Your task to perform on an android device: turn on translation in the chrome app Image 0: 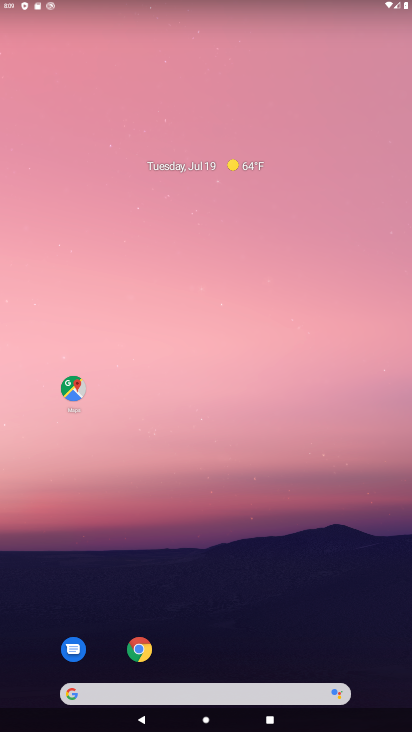
Step 0: click (151, 650)
Your task to perform on an android device: turn on translation in the chrome app Image 1: 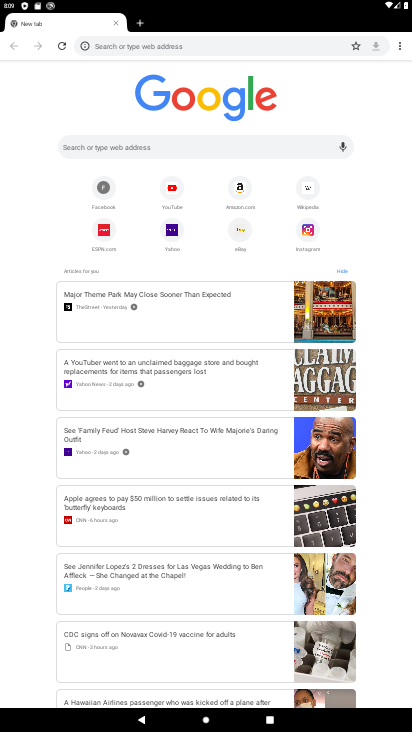
Step 1: click (400, 51)
Your task to perform on an android device: turn on translation in the chrome app Image 2: 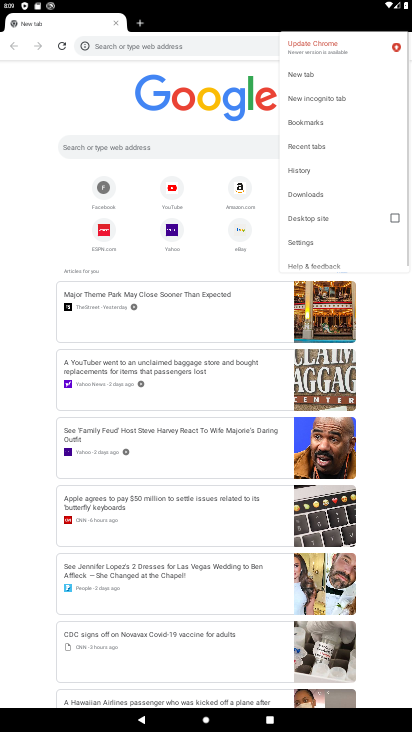
Step 2: click (302, 247)
Your task to perform on an android device: turn on translation in the chrome app Image 3: 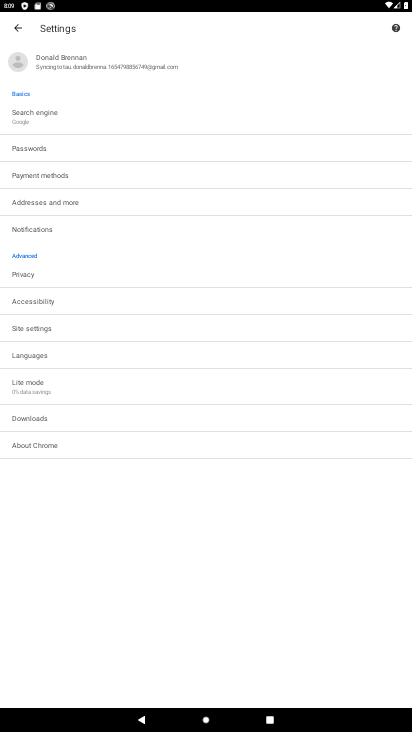
Step 3: click (53, 351)
Your task to perform on an android device: turn on translation in the chrome app Image 4: 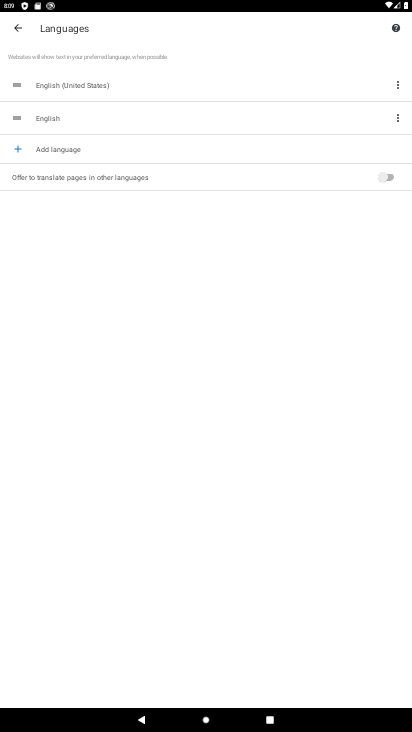
Step 4: click (388, 179)
Your task to perform on an android device: turn on translation in the chrome app Image 5: 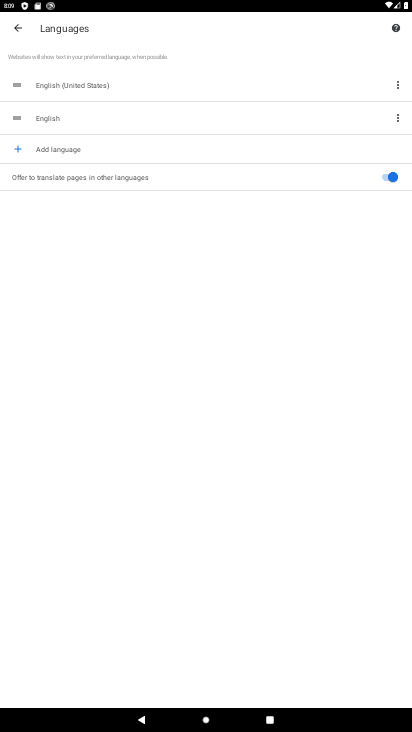
Step 5: task complete